Your task to perform on an android device: change text size in settings app Image 0: 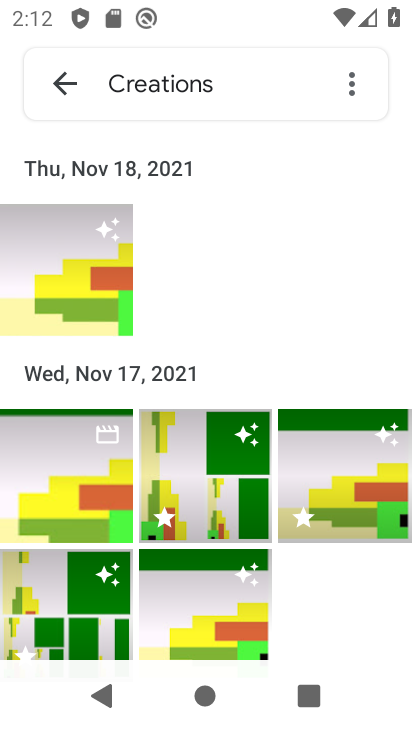
Step 0: press home button
Your task to perform on an android device: change text size in settings app Image 1: 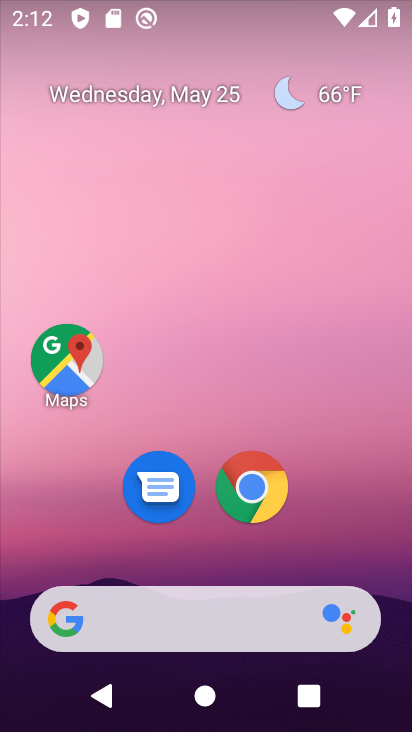
Step 1: drag from (265, 563) to (190, 48)
Your task to perform on an android device: change text size in settings app Image 2: 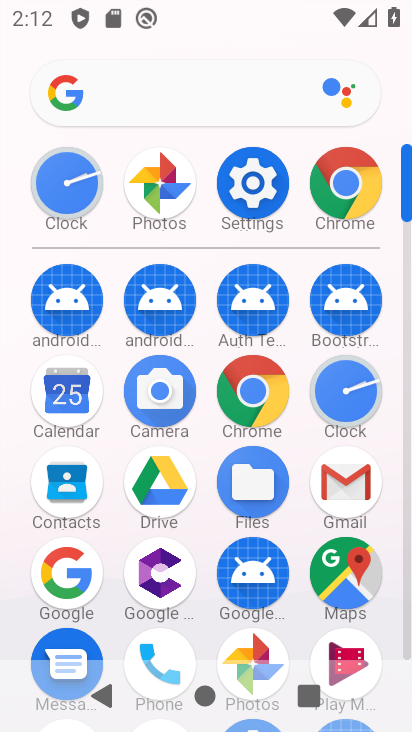
Step 2: click (248, 188)
Your task to perform on an android device: change text size in settings app Image 3: 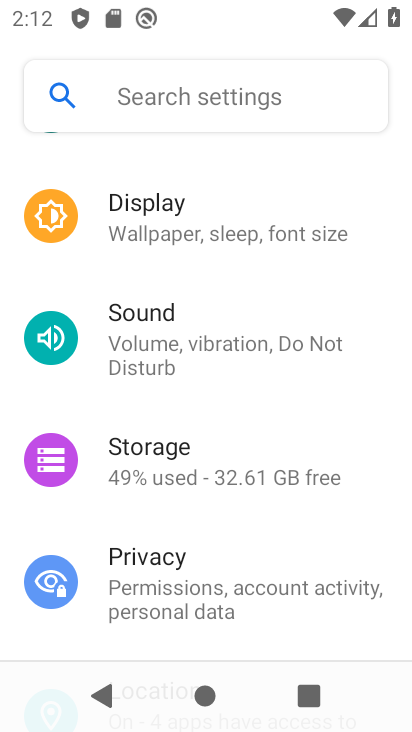
Step 3: click (159, 242)
Your task to perform on an android device: change text size in settings app Image 4: 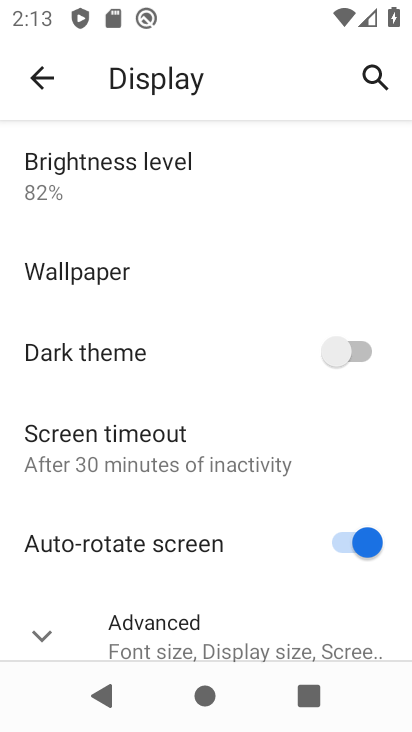
Step 4: drag from (215, 617) to (226, 350)
Your task to perform on an android device: change text size in settings app Image 5: 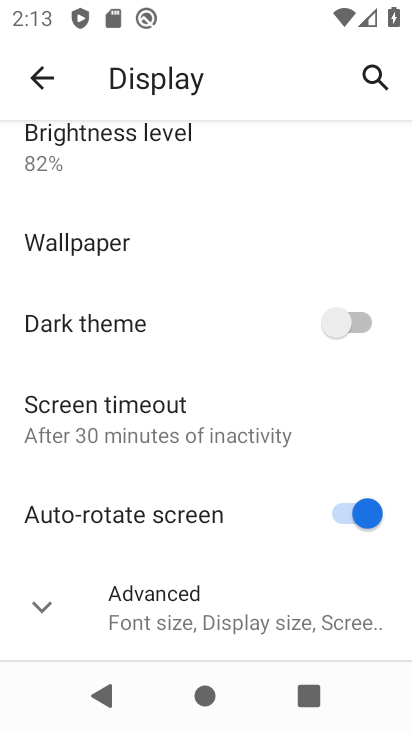
Step 5: click (141, 618)
Your task to perform on an android device: change text size in settings app Image 6: 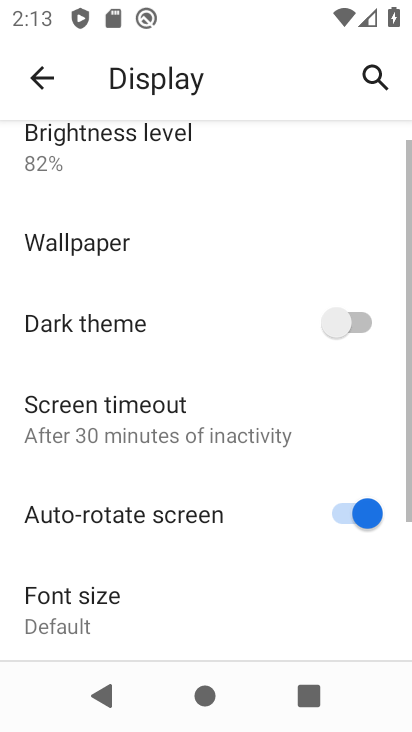
Step 6: drag from (162, 616) to (211, 266)
Your task to perform on an android device: change text size in settings app Image 7: 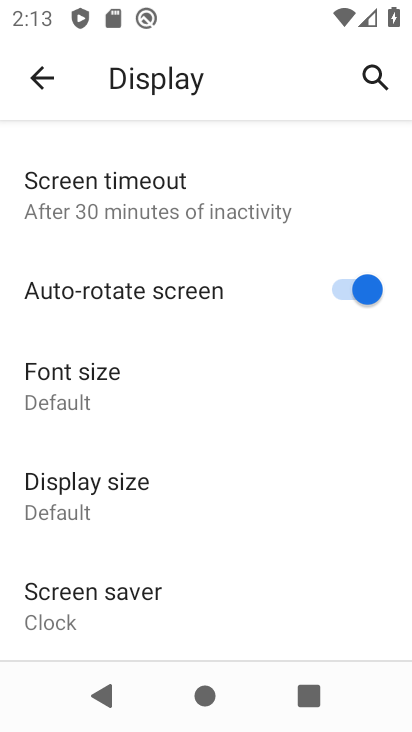
Step 7: click (50, 415)
Your task to perform on an android device: change text size in settings app Image 8: 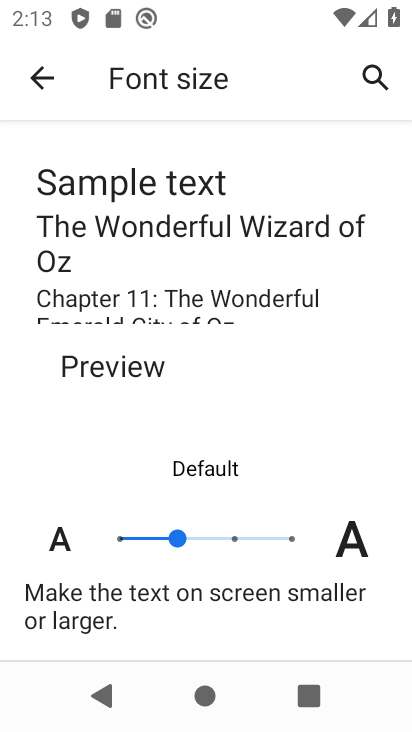
Step 8: click (124, 542)
Your task to perform on an android device: change text size in settings app Image 9: 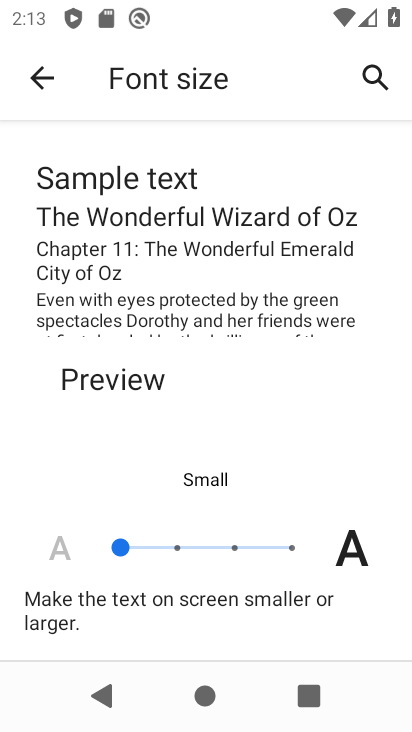
Step 9: task complete